Your task to perform on an android device: set an alarm Image 0: 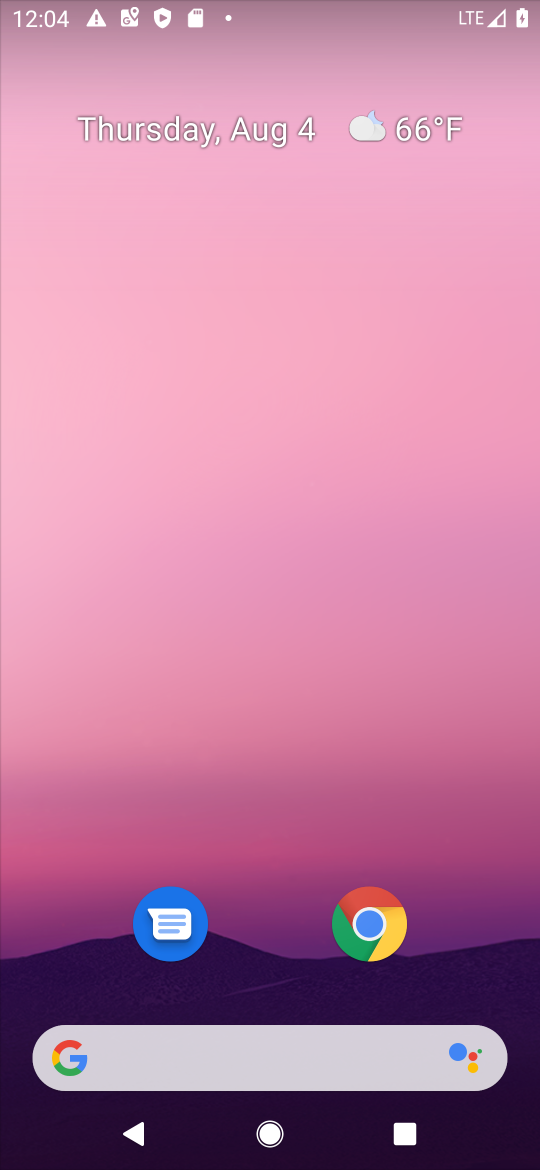
Step 0: drag from (135, 855) to (361, 8)
Your task to perform on an android device: set an alarm Image 1: 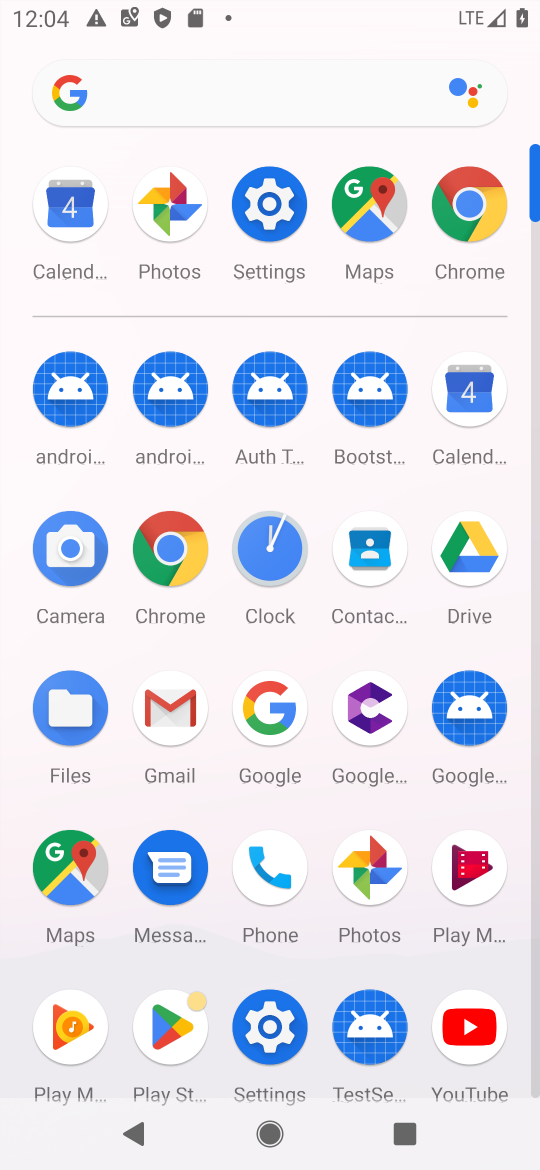
Step 1: click (258, 566)
Your task to perform on an android device: set an alarm Image 2: 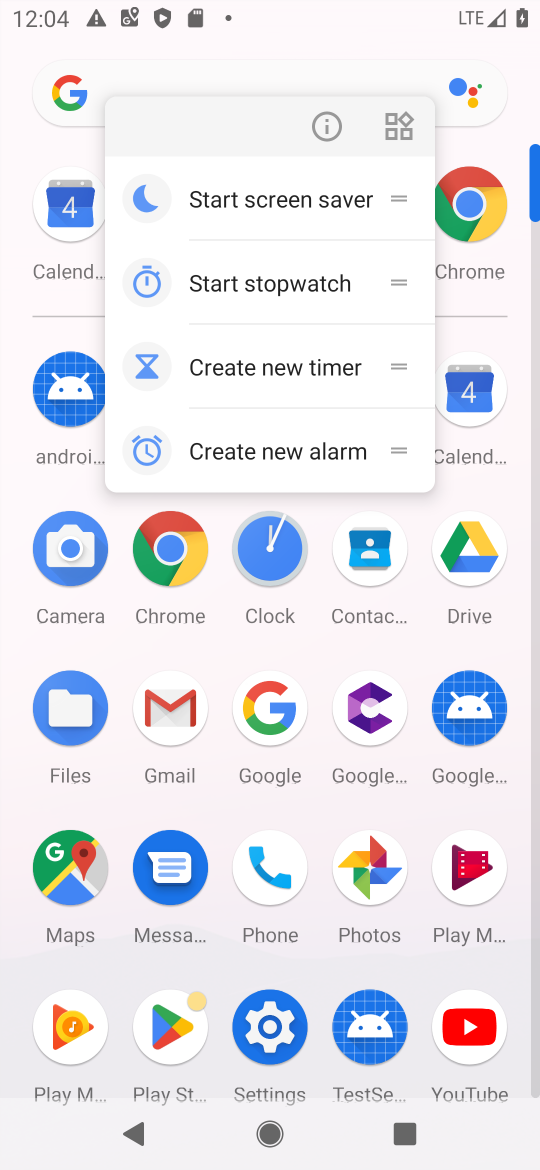
Step 2: click (247, 552)
Your task to perform on an android device: set an alarm Image 3: 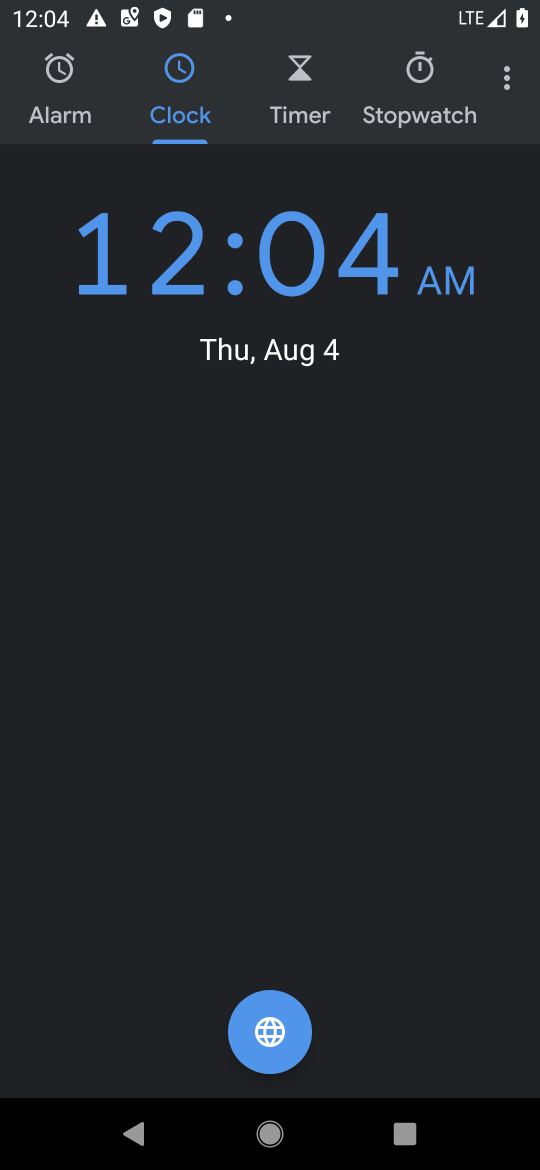
Step 3: click (63, 106)
Your task to perform on an android device: set an alarm Image 4: 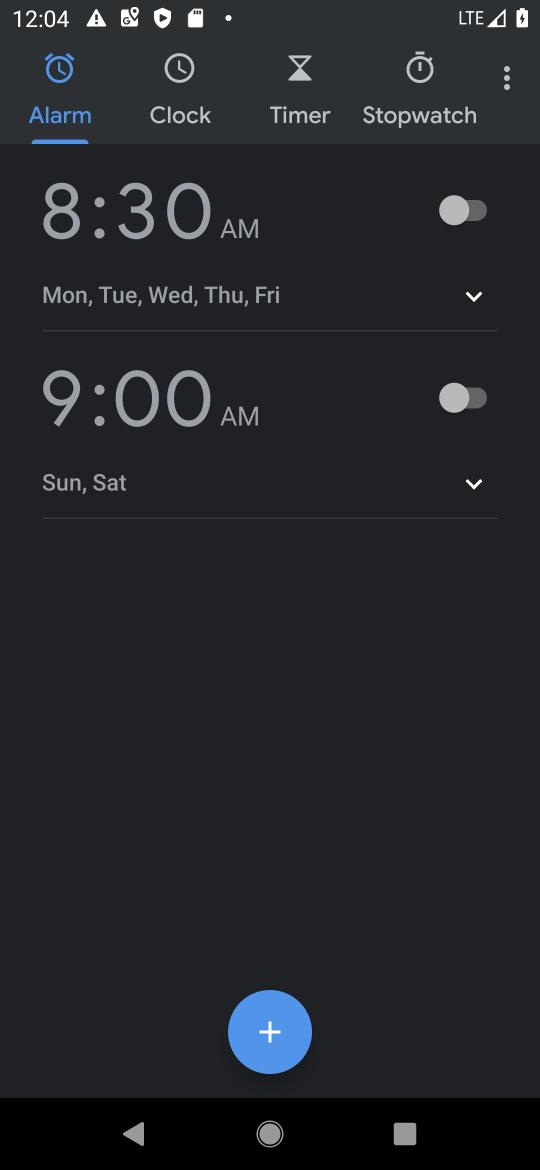
Step 4: task complete